Your task to perform on an android device: turn on improve location accuracy Image 0: 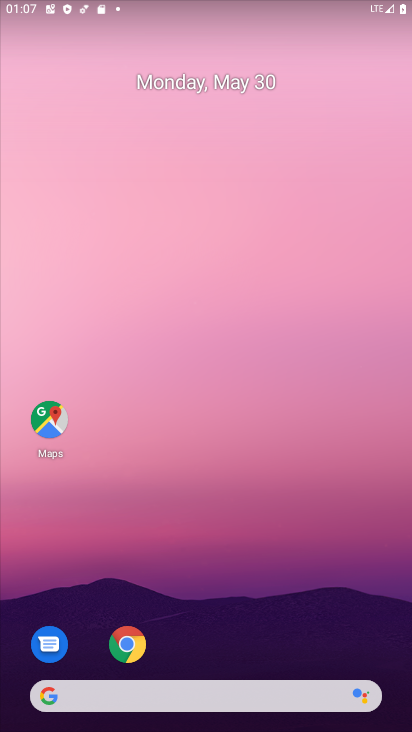
Step 0: drag from (385, 599) to (372, 161)
Your task to perform on an android device: turn on improve location accuracy Image 1: 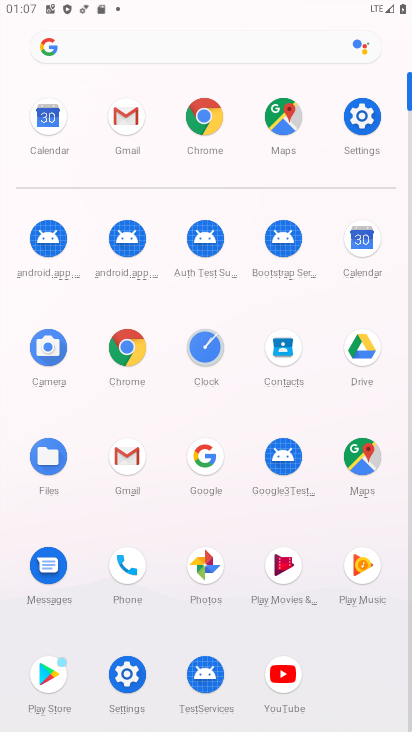
Step 1: click (92, 692)
Your task to perform on an android device: turn on improve location accuracy Image 2: 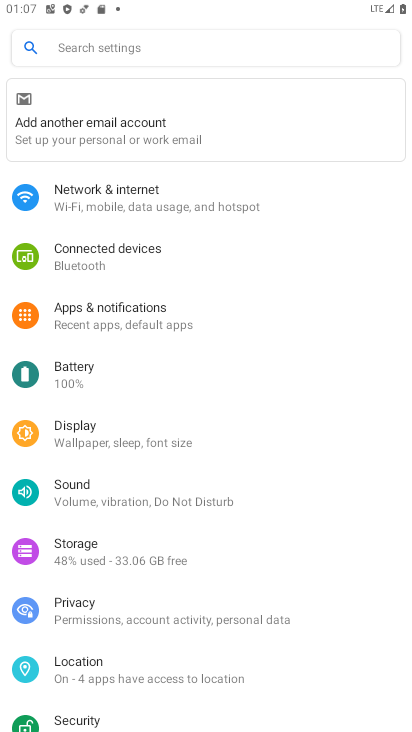
Step 2: drag from (247, 554) to (315, 342)
Your task to perform on an android device: turn on improve location accuracy Image 3: 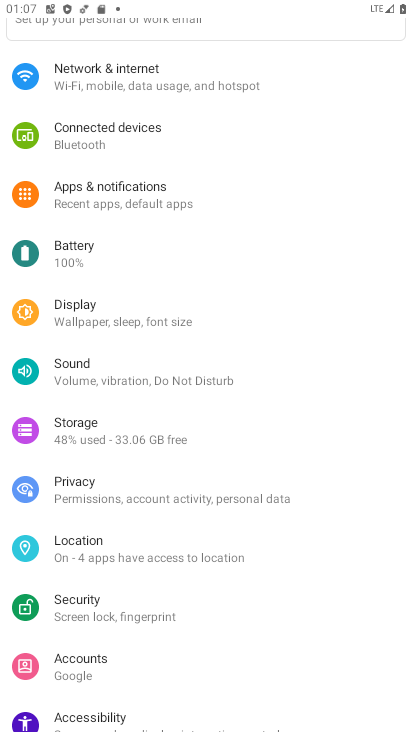
Step 3: click (132, 542)
Your task to perform on an android device: turn on improve location accuracy Image 4: 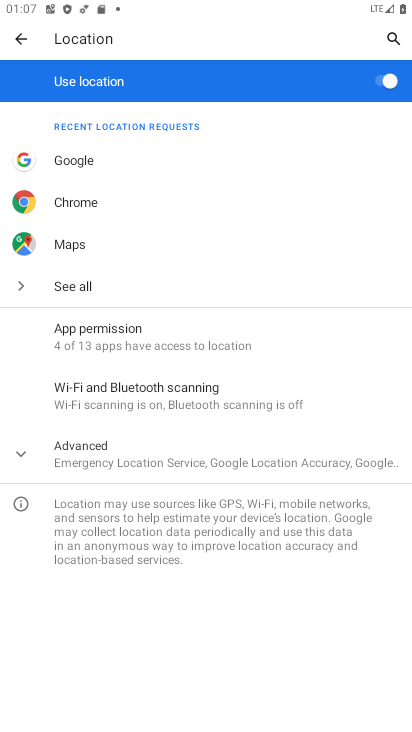
Step 4: click (169, 463)
Your task to perform on an android device: turn on improve location accuracy Image 5: 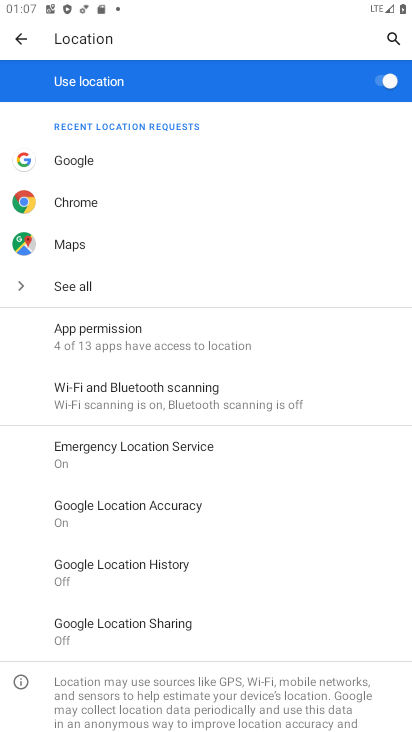
Step 5: click (166, 500)
Your task to perform on an android device: turn on improve location accuracy Image 6: 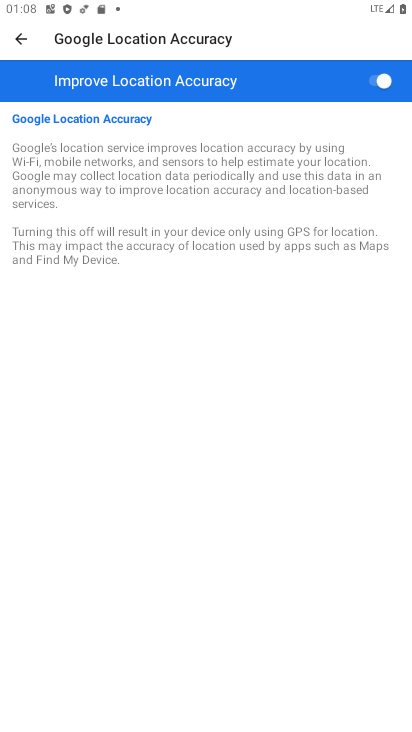
Step 6: task complete